Your task to perform on an android device: Go to network settings Image 0: 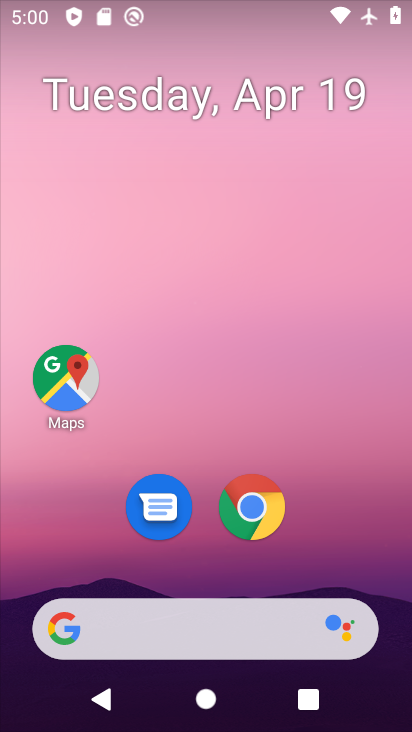
Step 0: drag from (381, 454) to (379, 88)
Your task to perform on an android device: Go to network settings Image 1: 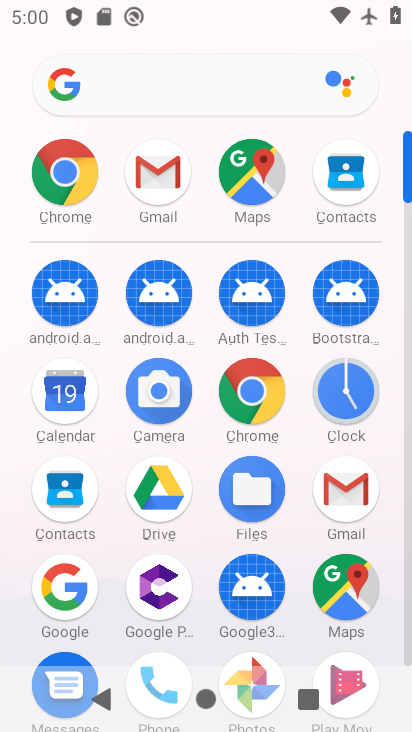
Step 1: drag from (315, 580) to (310, 127)
Your task to perform on an android device: Go to network settings Image 2: 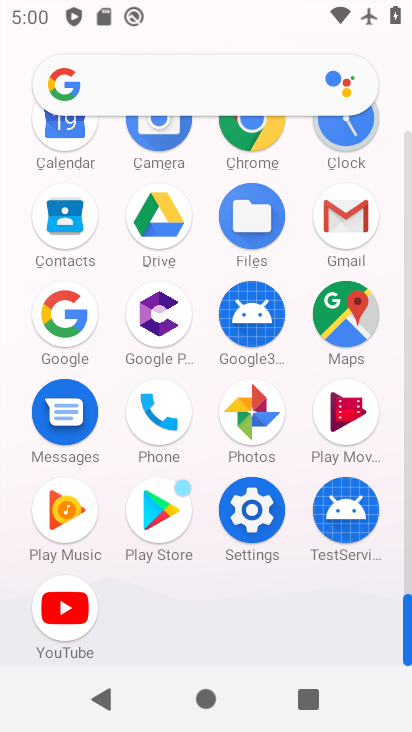
Step 2: click (251, 516)
Your task to perform on an android device: Go to network settings Image 3: 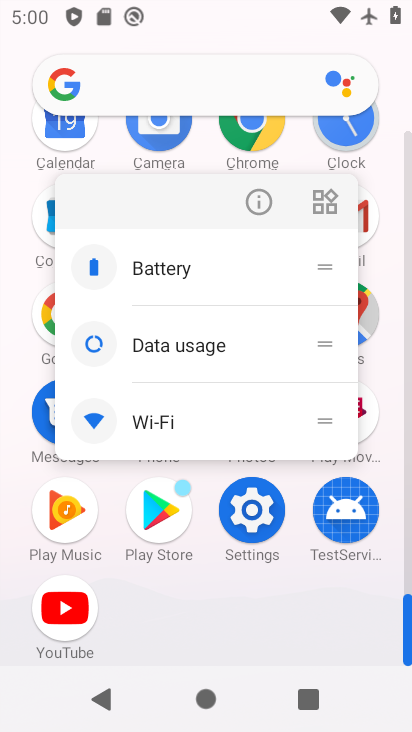
Step 3: click (251, 502)
Your task to perform on an android device: Go to network settings Image 4: 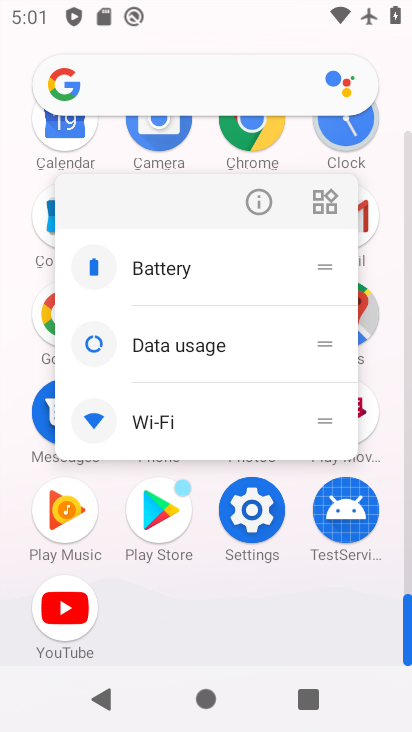
Step 4: click (237, 519)
Your task to perform on an android device: Go to network settings Image 5: 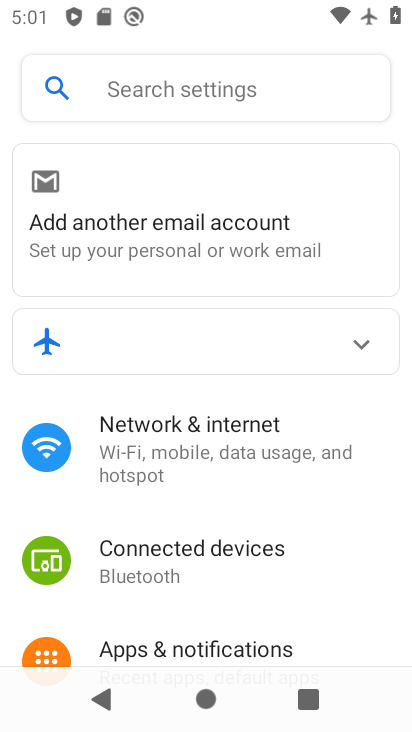
Step 5: click (197, 424)
Your task to perform on an android device: Go to network settings Image 6: 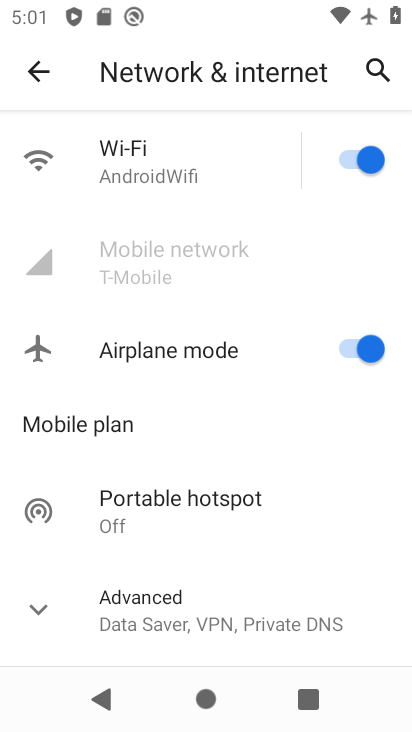
Step 6: task complete